Your task to perform on an android device: Go to battery settings Image 0: 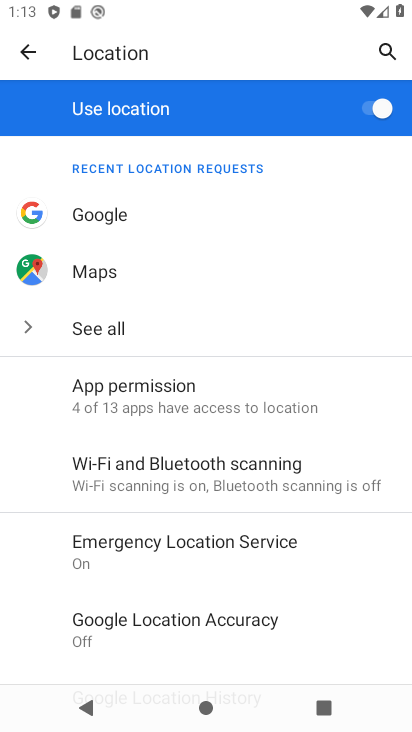
Step 0: press home button
Your task to perform on an android device: Go to battery settings Image 1: 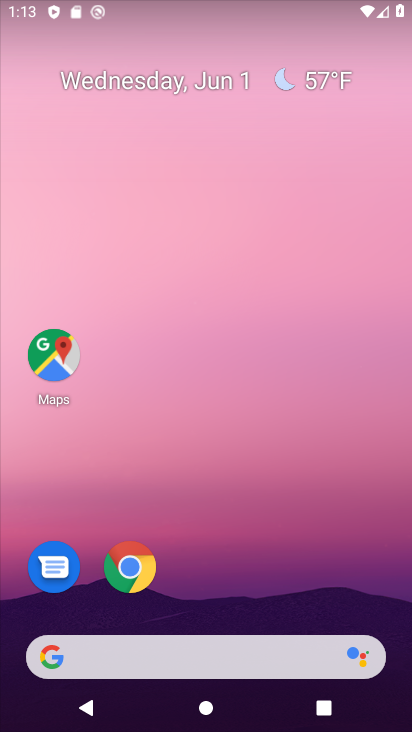
Step 1: drag from (279, 505) to (261, 171)
Your task to perform on an android device: Go to battery settings Image 2: 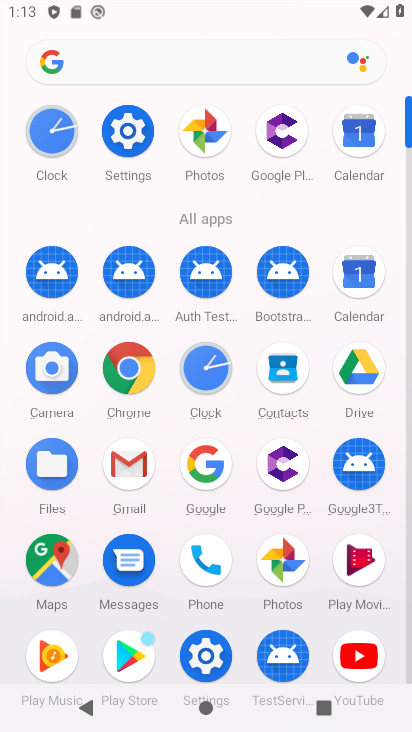
Step 2: click (123, 141)
Your task to perform on an android device: Go to battery settings Image 3: 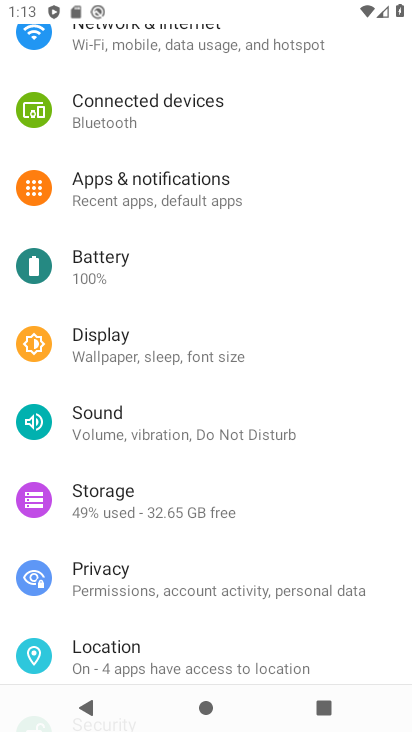
Step 3: click (108, 281)
Your task to perform on an android device: Go to battery settings Image 4: 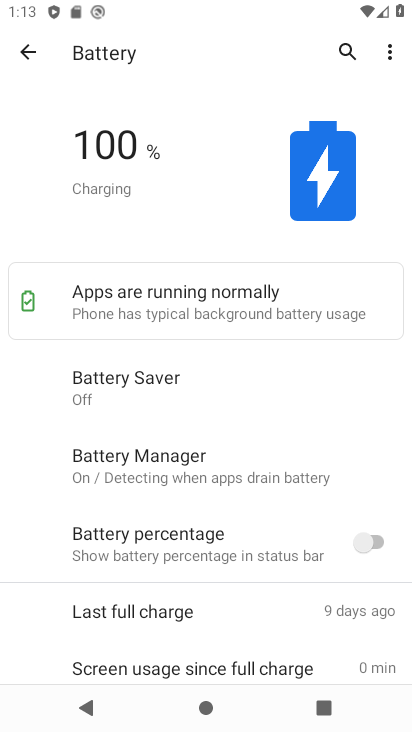
Step 4: task complete